Your task to perform on an android device: delete browsing data in the chrome app Image 0: 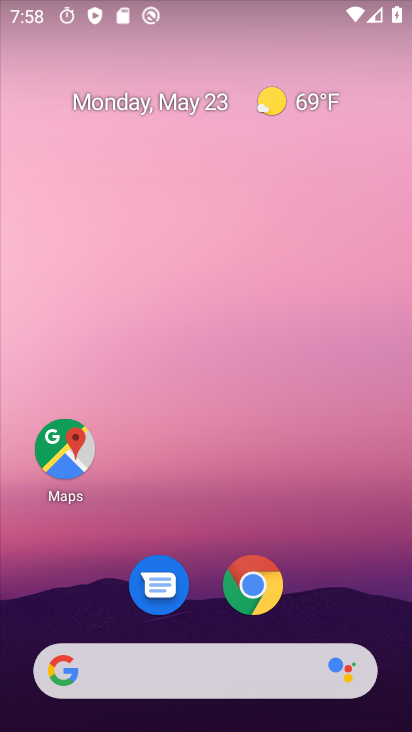
Step 0: click (251, 587)
Your task to perform on an android device: delete browsing data in the chrome app Image 1: 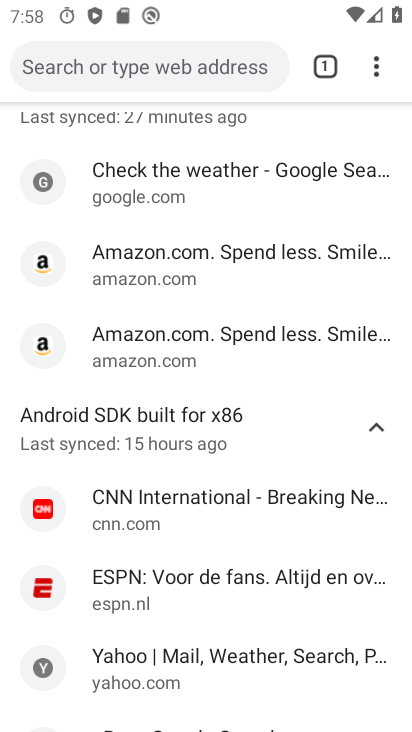
Step 1: click (372, 73)
Your task to perform on an android device: delete browsing data in the chrome app Image 2: 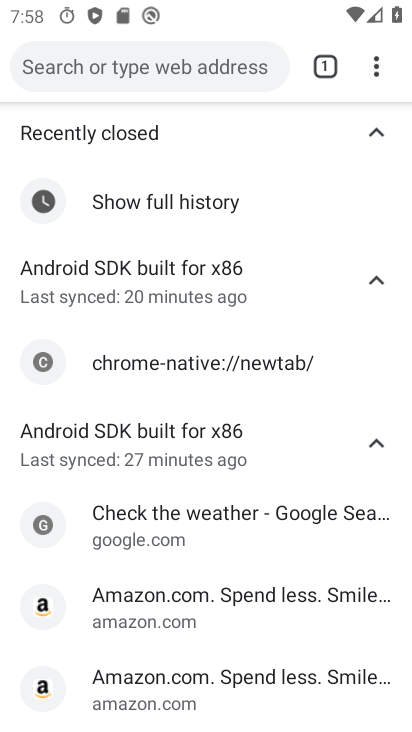
Step 2: click (375, 61)
Your task to perform on an android device: delete browsing data in the chrome app Image 3: 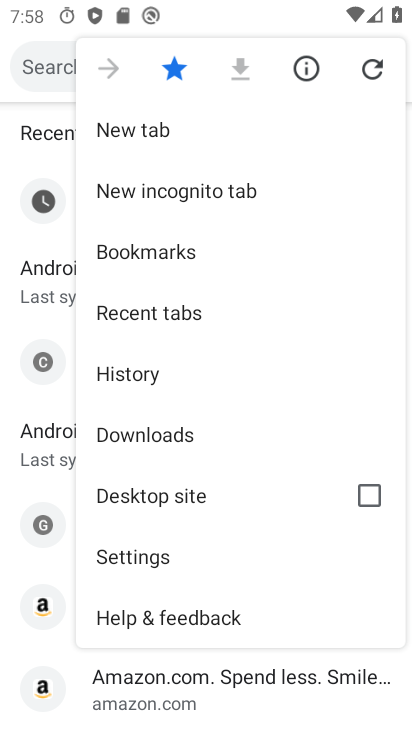
Step 3: click (153, 371)
Your task to perform on an android device: delete browsing data in the chrome app Image 4: 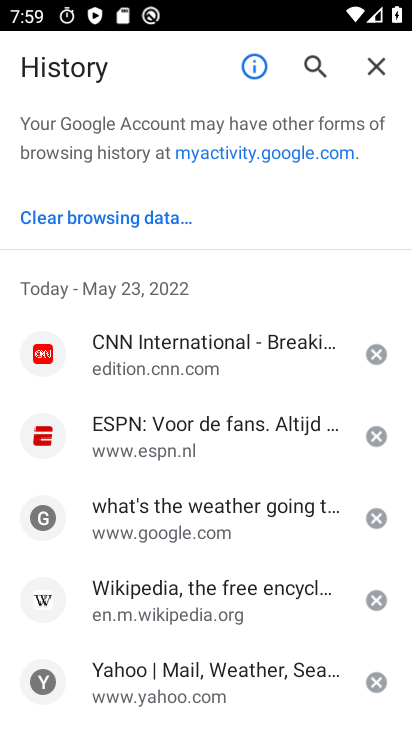
Step 4: click (135, 219)
Your task to perform on an android device: delete browsing data in the chrome app Image 5: 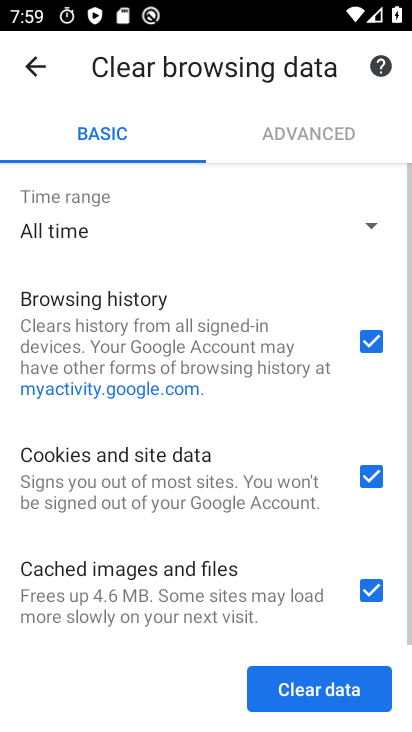
Step 5: click (306, 684)
Your task to perform on an android device: delete browsing data in the chrome app Image 6: 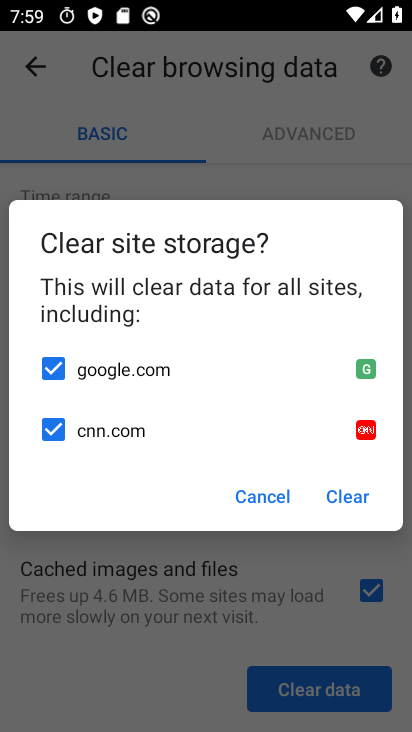
Step 6: click (359, 492)
Your task to perform on an android device: delete browsing data in the chrome app Image 7: 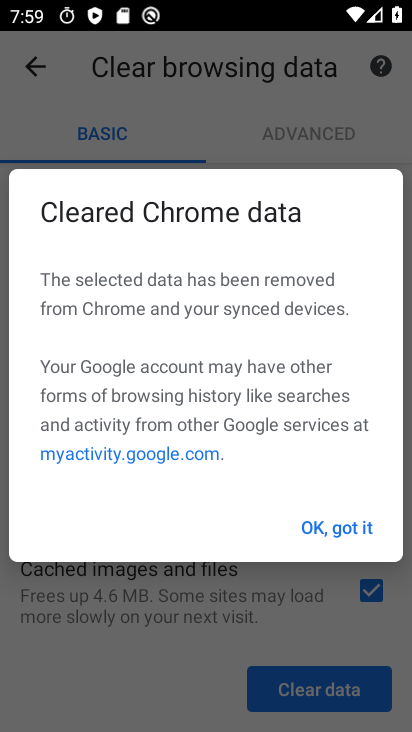
Step 7: click (349, 527)
Your task to perform on an android device: delete browsing data in the chrome app Image 8: 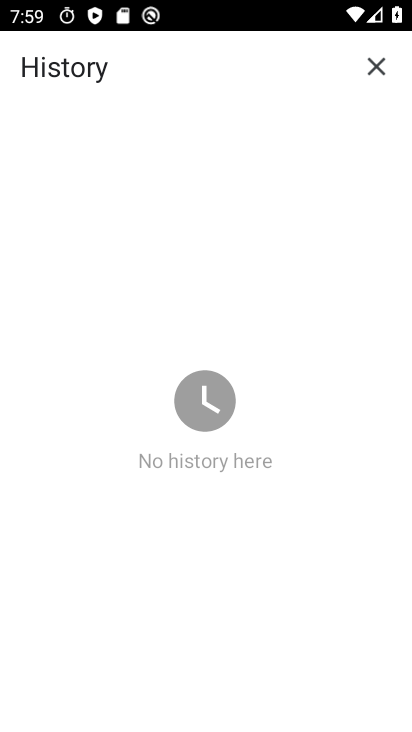
Step 8: task complete